Your task to perform on an android device: change the upload size in google photos Image 0: 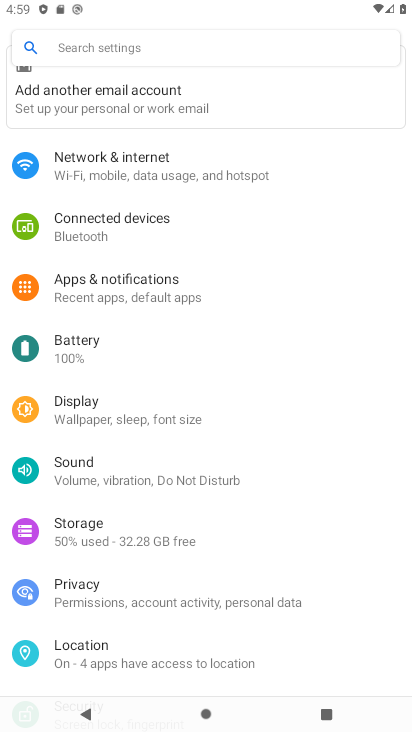
Step 0: press back button
Your task to perform on an android device: change the upload size in google photos Image 1: 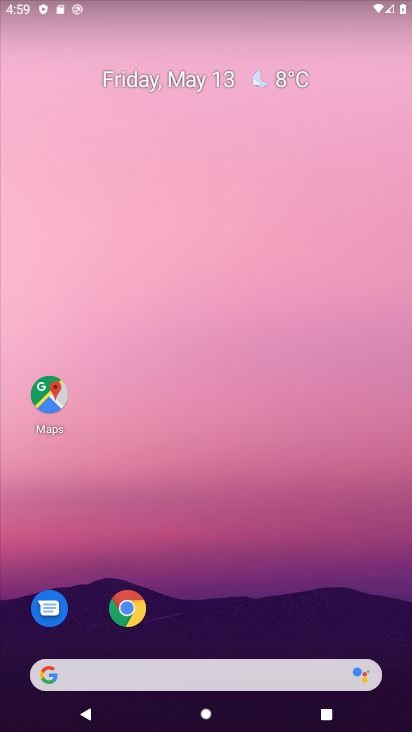
Step 1: drag from (243, 585) to (225, 179)
Your task to perform on an android device: change the upload size in google photos Image 2: 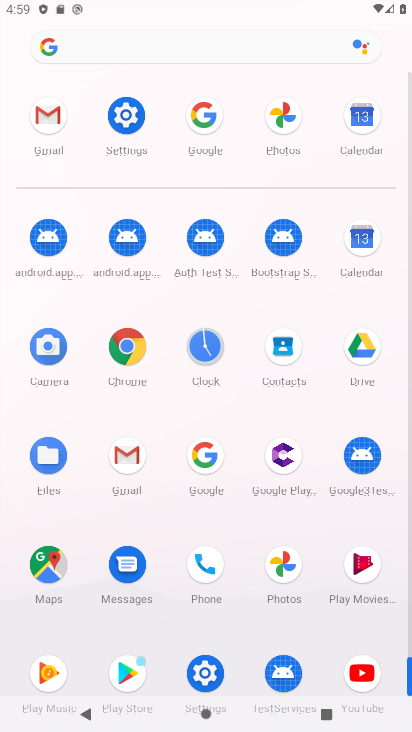
Step 2: click (279, 565)
Your task to perform on an android device: change the upload size in google photos Image 3: 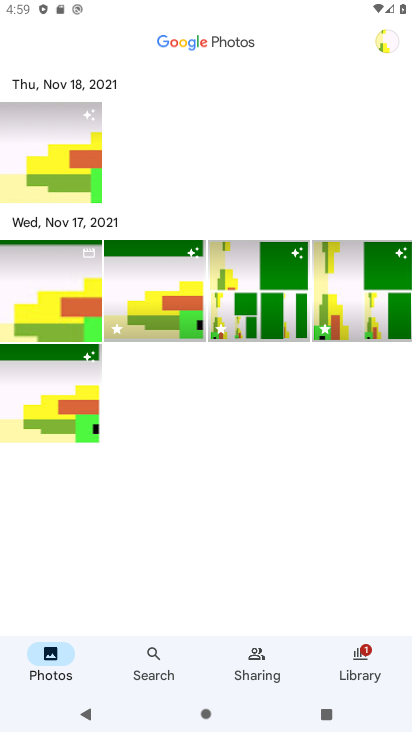
Step 3: click (384, 42)
Your task to perform on an android device: change the upload size in google photos Image 4: 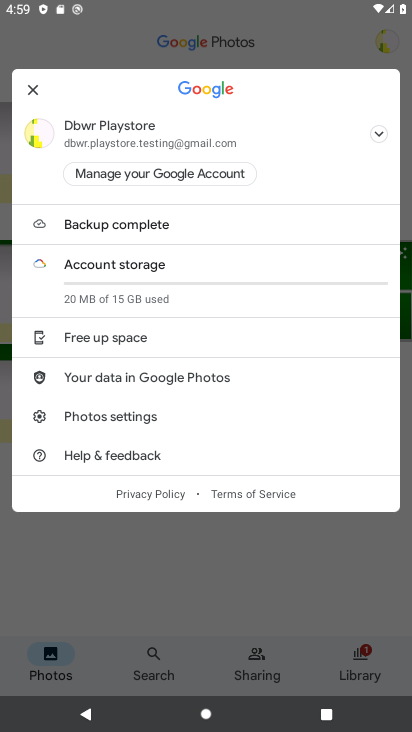
Step 4: click (131, 413)
Your task to perform on an android device: change the upload size in google photos Image 5: 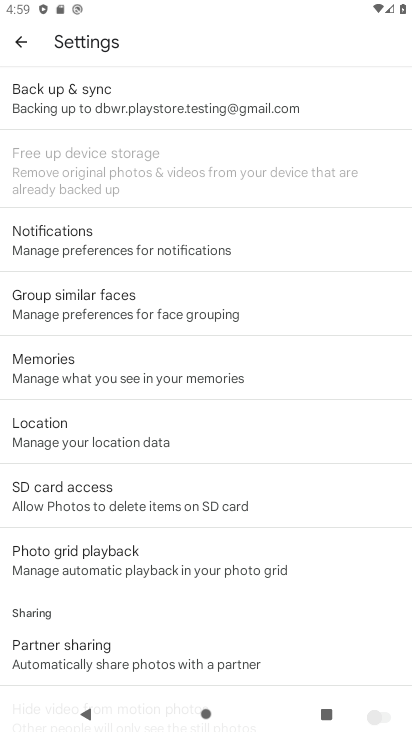
Step 5: click (123, 112)
Your task to perform on an android device: change the upload size in google photos Image 6: 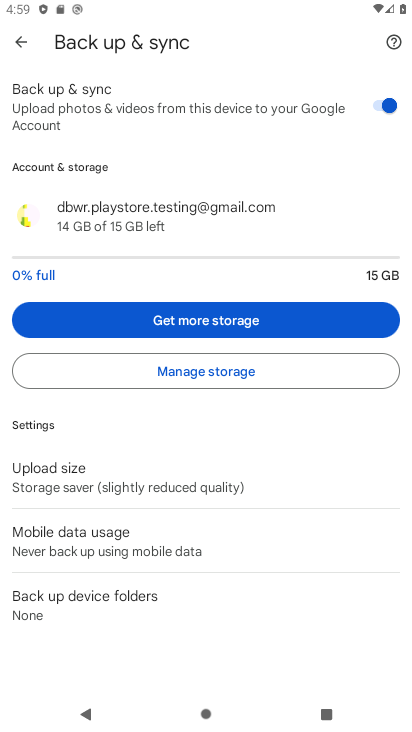
Step 6: click (120, 490)
Your task to perform on an android device: change the upload size in google photos Image 7: 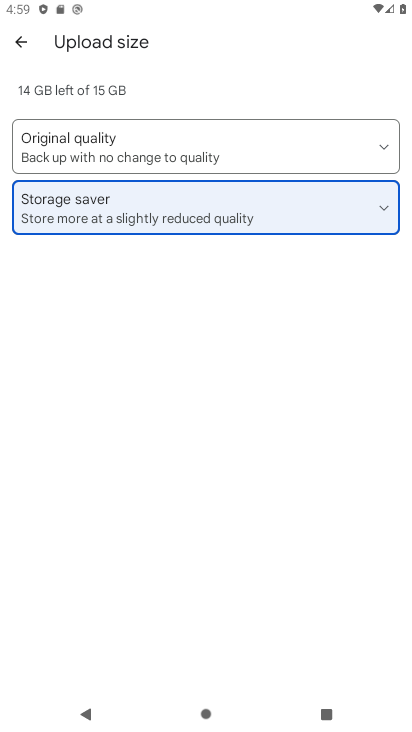
Step 7: click (107, 132)
Your task to perform on an android device: change the upload size in google photos Image 8: 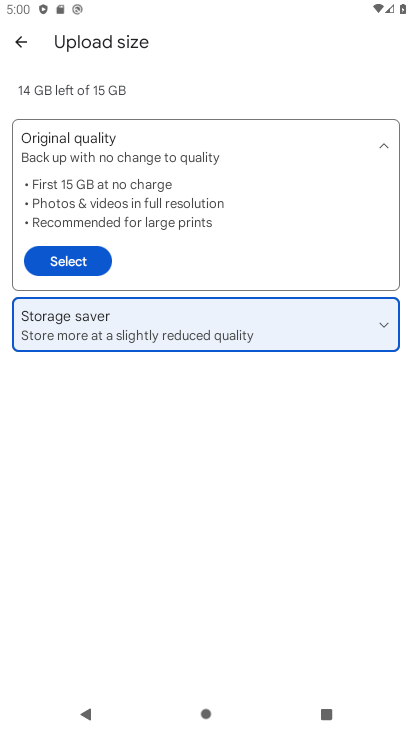
Step 8: click (55, 265)
Your task to perform on an android device: change the upload size in google photos Image 9: 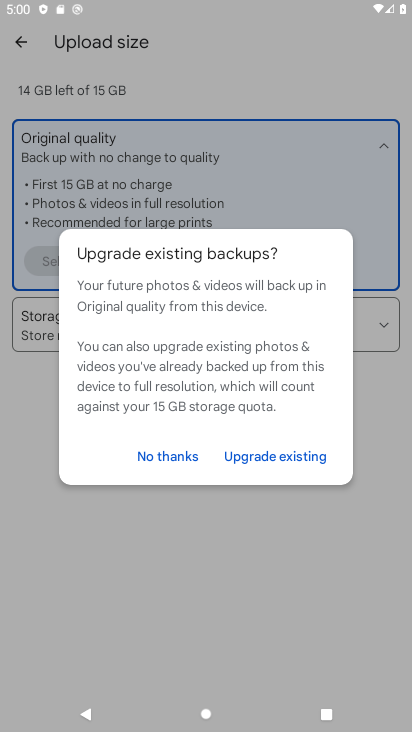
Step 9: click (182, 453)
Your task to perform on an android device: change the upload size in google photos Image 10: 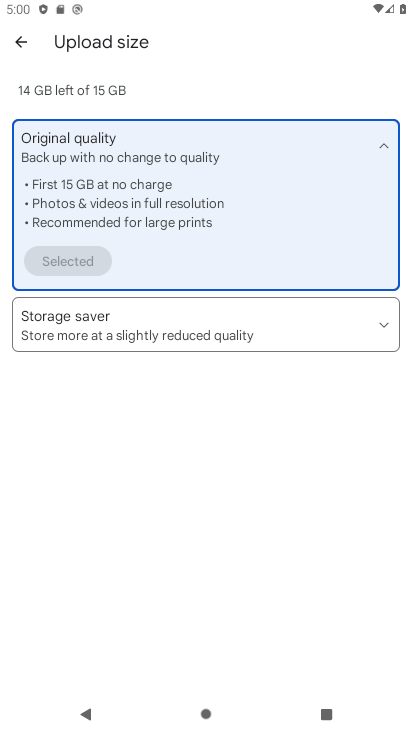
Step 10: press back button
Your task to perform on an android device: change the upload size in google photos Image 11: 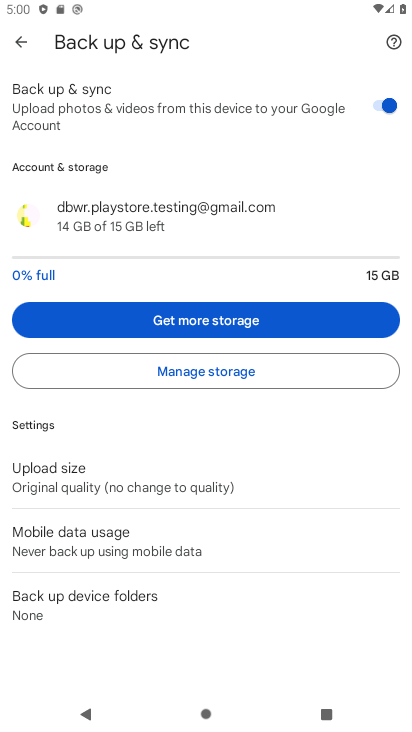
Step 11: click (63, 475)
Your task to perform on an android device: change the upload size in google photos Image 12: 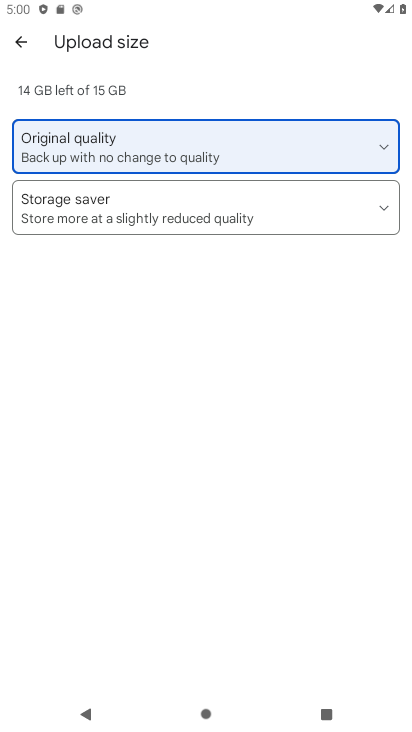
Step 12: task complete